Your task to perform on an android device: What is the recent news? Image 0: 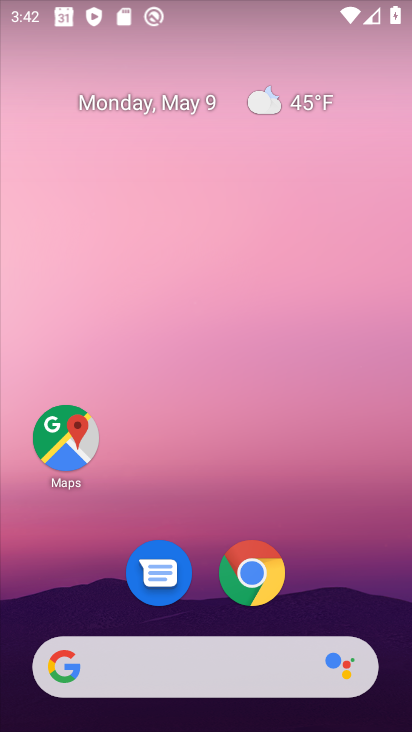
Step 0: drag from (13, 270) to (408, 416)
Your task to perform on an android device: What is the recent news? Image 1: 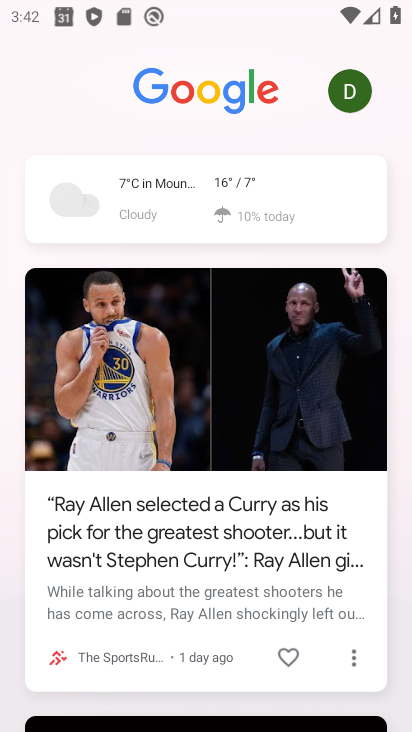
Step 1: task complete